Your task to perform on an android device: Go to settings Image 0: 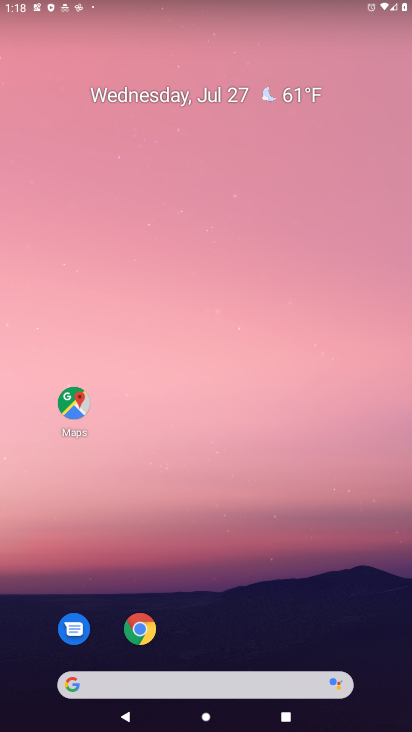
Step 0: drag from (323, 633) to (137, 2)
Your task to perform on an android device: Go to settings Image 1: 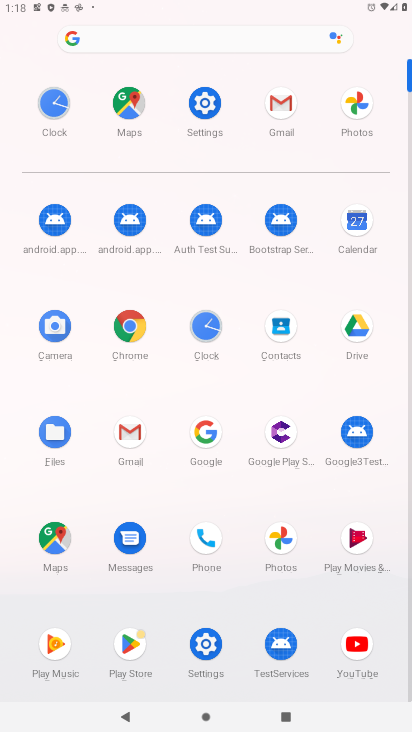
Step 1: click (210, 88)
Your task to perform on an android device: Go to settings Image 2: 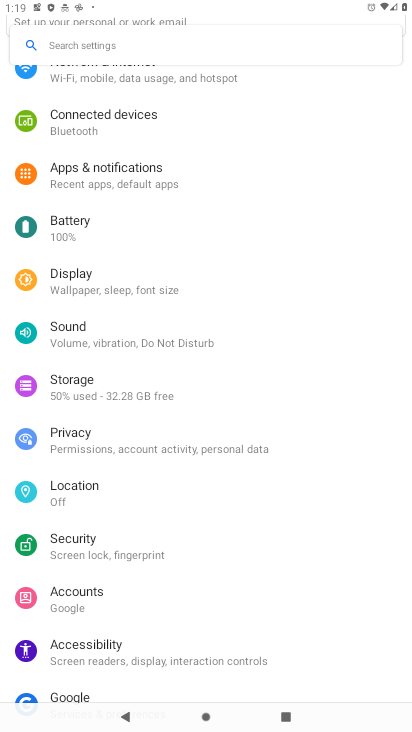
Step 2: task complete